Your task to perform on an android device: Check the weather Image 0: 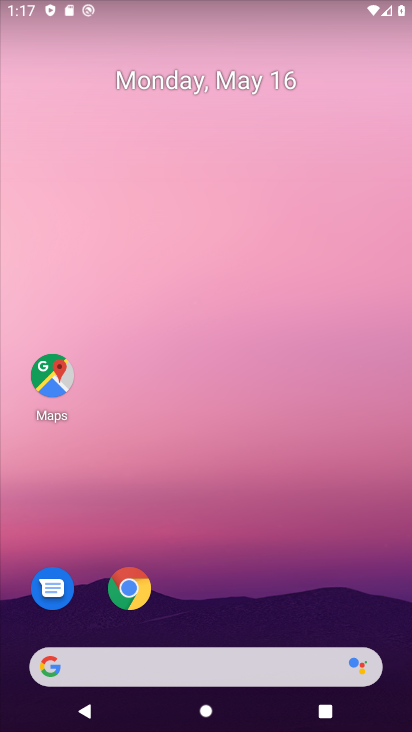
Step 0: drag from (264, 546) to (216, 3)
Your task to perform on an android device: Check the weather Image 1: 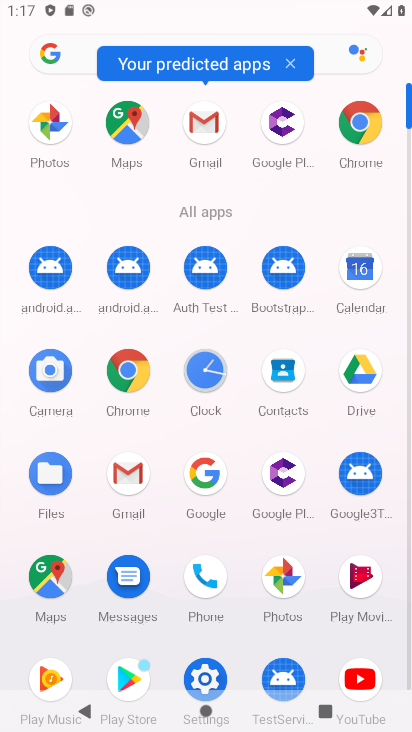
Step 1: click (201, 472)
Your task to perform on an android device: Check the weather Image 2: 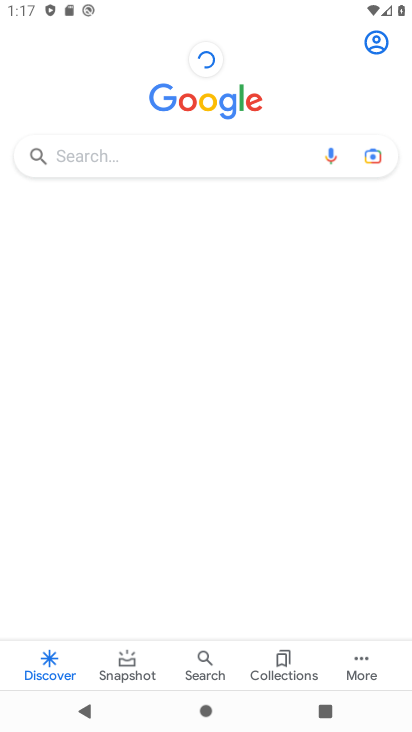
Step 2: click (158, 158)
Your task to perform on an android device: Check the weather Image 3: 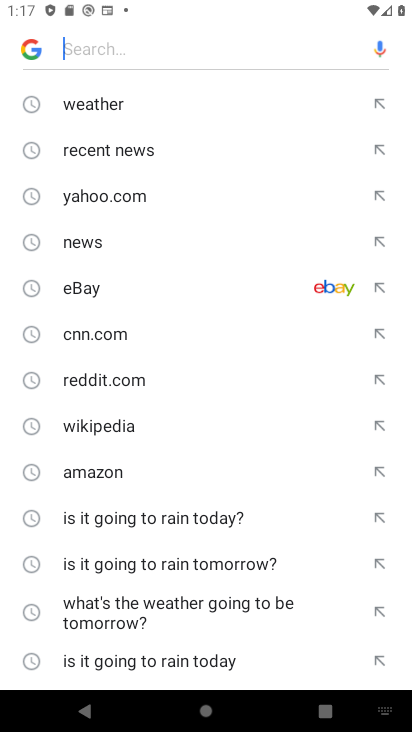
Step 3: click (81, 113)
Your task to perform on an android device: Check the weather Image 4: 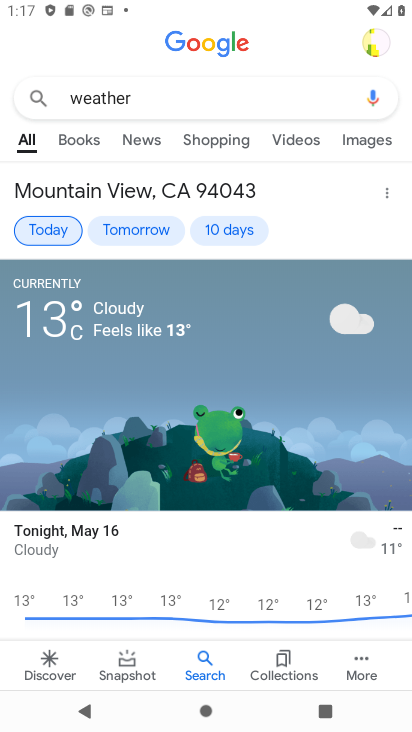
Step 4: task complete